Your task to perform on an android device: Turn off the flashlight Image 0: 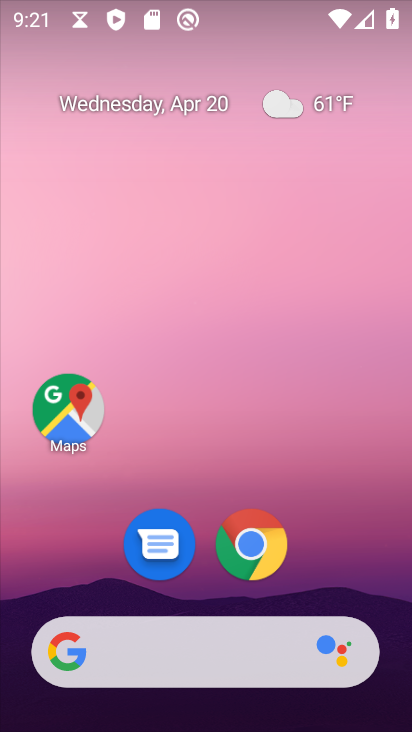
Step 0: drag from (253, 1) to (246, 506)
Your task to perform on an android device: Turn off the flashlight Image 1: 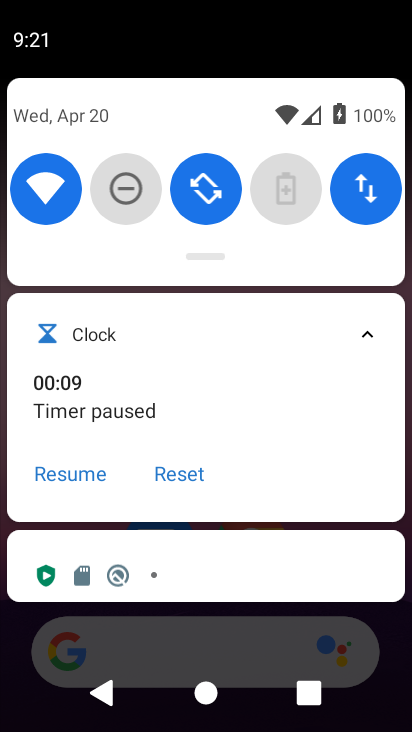
Step 1: drag from (211, 245) to (203, 604)
Your task to perform on an android device: Turn off the flashlight Image 2: 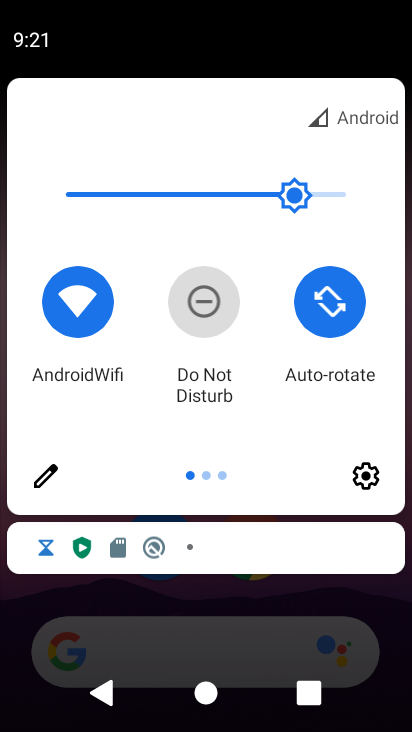
Step 2: drag from (355, 413) to (70, 399)
Your task to perform on an android device: Turn off the flashlight Image 3: 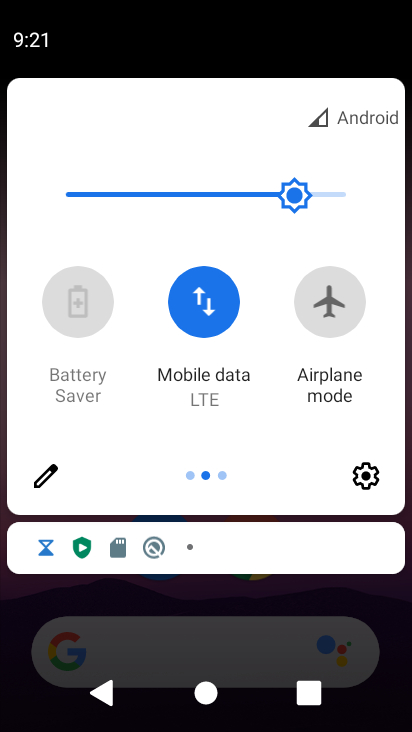
Step 3: drag from (353, 404) to (30, 382)
Your task to perform on an android device: Turn off the flashlight Image 4: 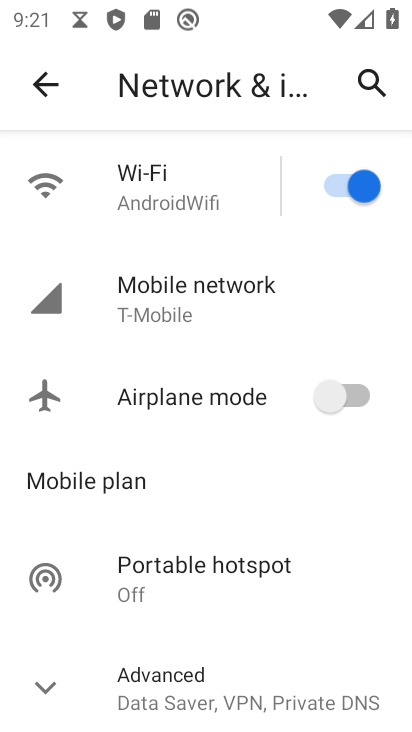
Step 4: click (49, 84)
Your task to perform on an android device: Turn off the flashlight Image 5: 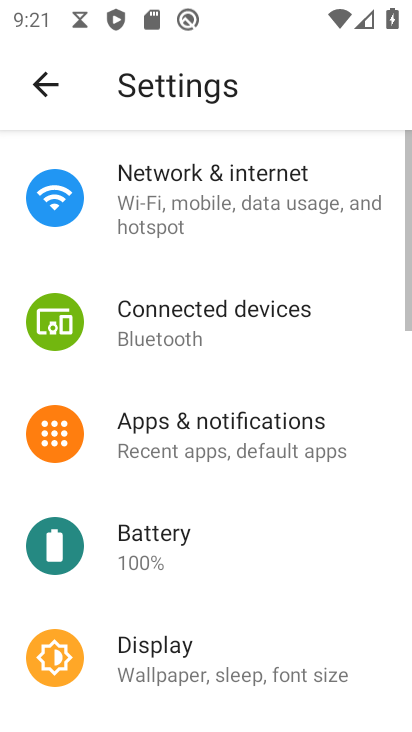
Step 5: task complete